Your task to perform on an android device: Go to notification settings Image 0: 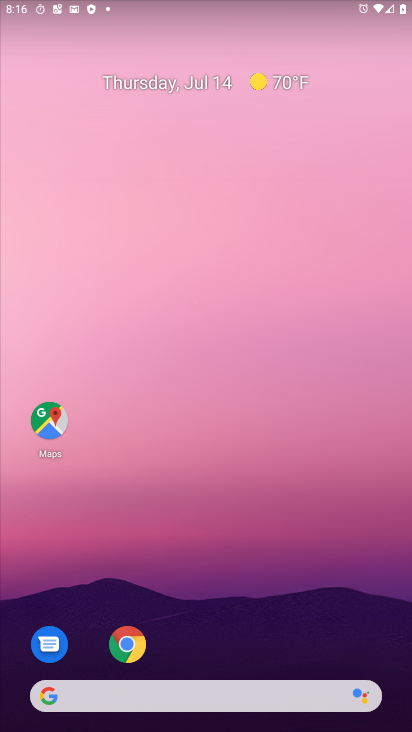
Step 0: drag from (217, 698) to (370, 197)
Your task to perform on an android device: Go to notification settings Image 1: 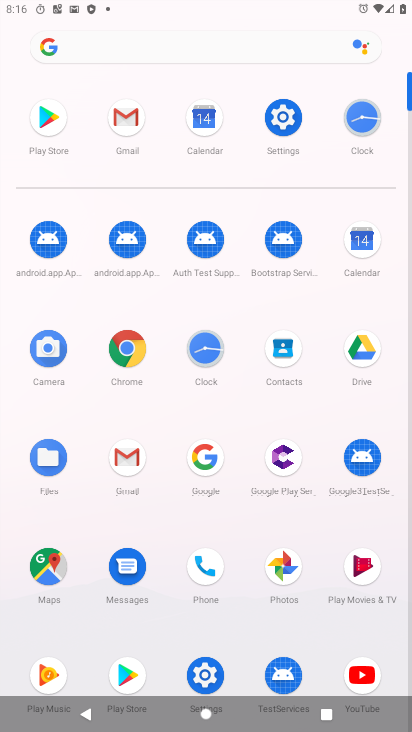
Step 1: click (279, 124)
Your task to perform on an android device: Go to notification settings Image 2: 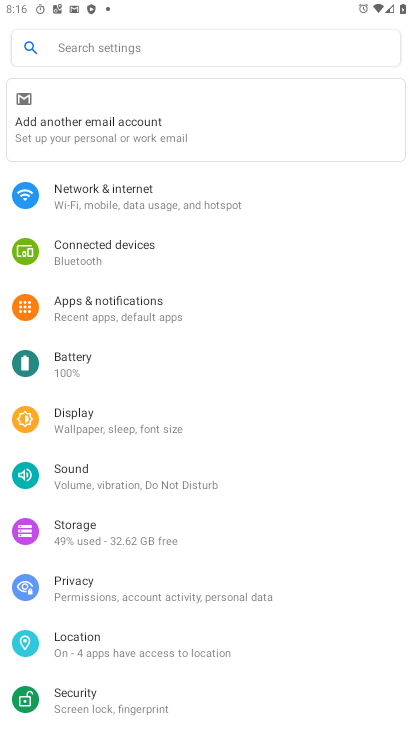
Step 2: click (133, 301)
Your task to perform on an android device: Go to notification settings Image 3: 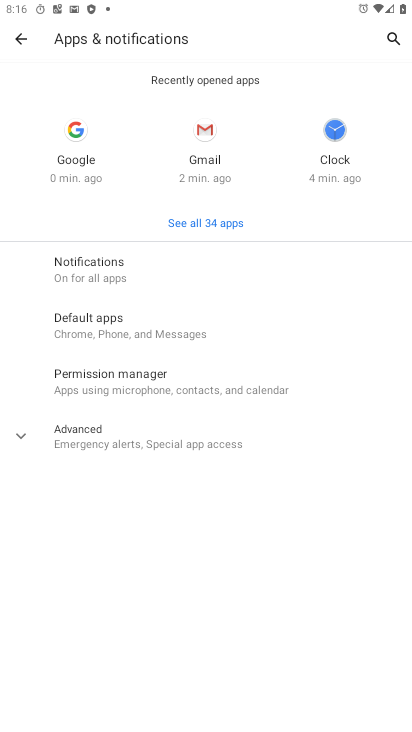
Step 3: click (114, 268)
Your task to perform on an android device: Go to notification settings Image 4: 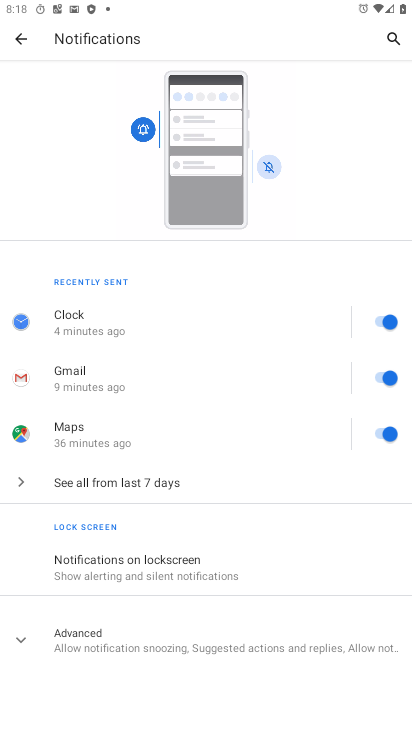
Step 4: task complete